Your task to perform on an android device: Open notification settings Image 0: 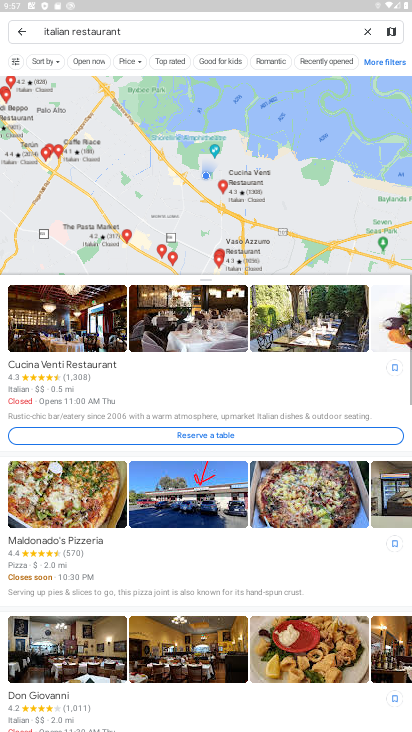
Step 0: press home button
Your task to perform on an android device: Open notification settings Image 1: 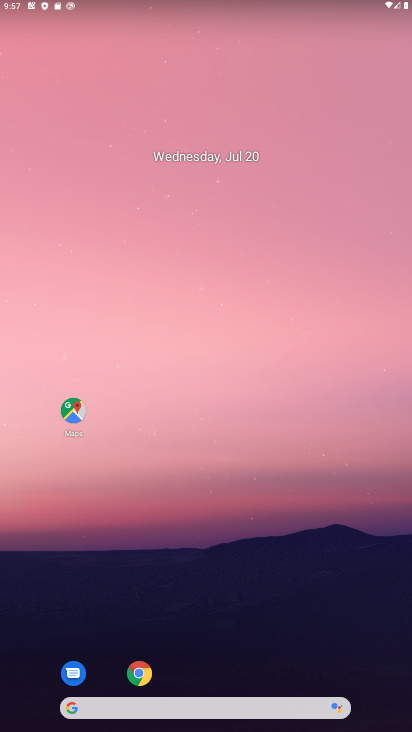
Step 1: drag from (186, 707) to (249, 76)
Your task to perform on an android device: Open notification settings Image 2: 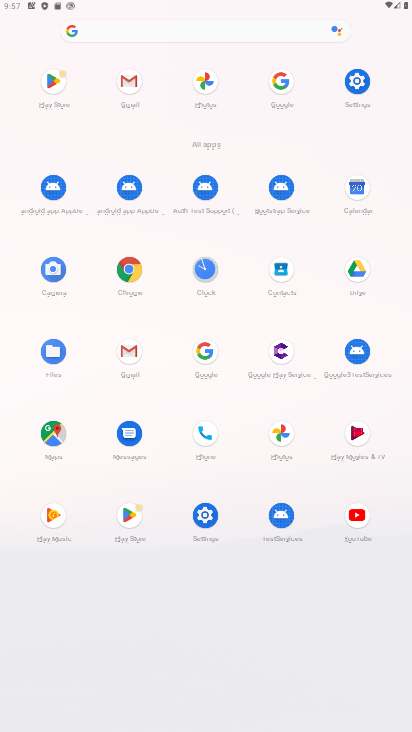
Step 2: click (358, 80)
Your task to perform on an android device: Open notification settings Image 3: 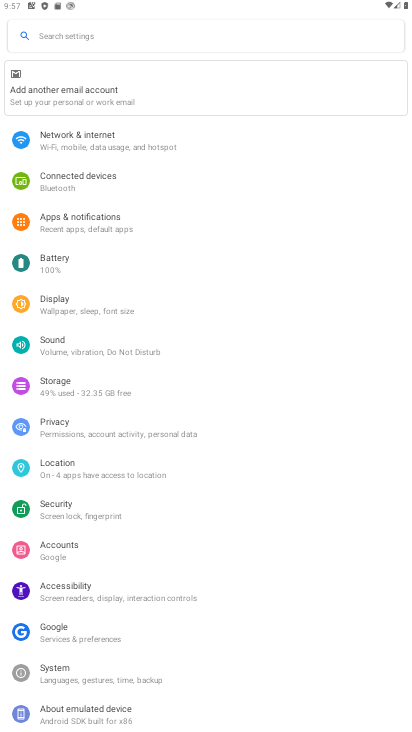
Step 3: click (104, 224)
Your task to perform on an android device: Open notification settings Image 4: 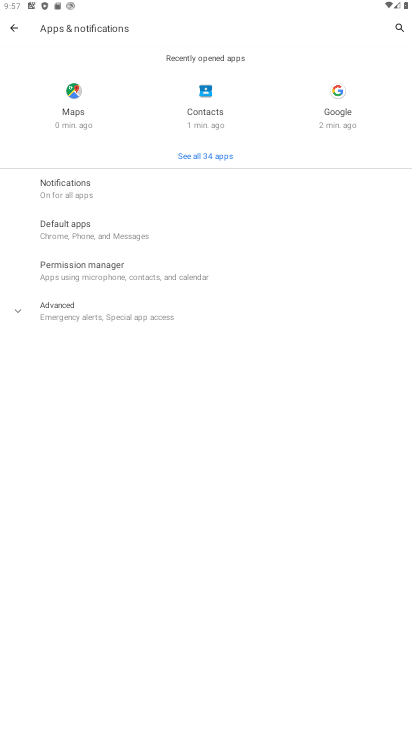
Step 4: click (77, 188)
Your task to perform on an android device: Open notification settings Image 5: 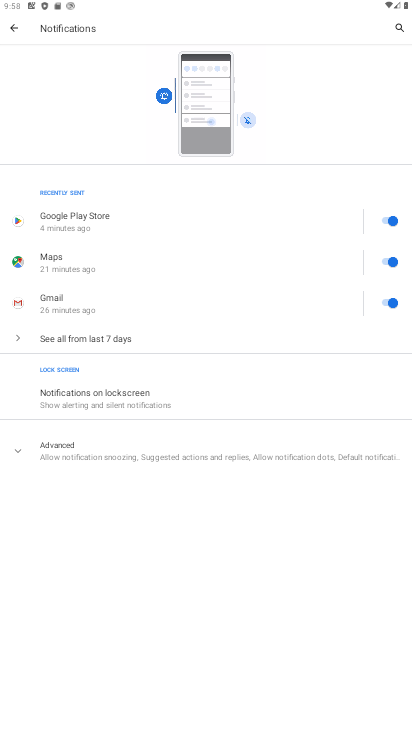
Step 5: task complete